Your task to perform on an android device: Play the last video I watched on Youtube Image 0: 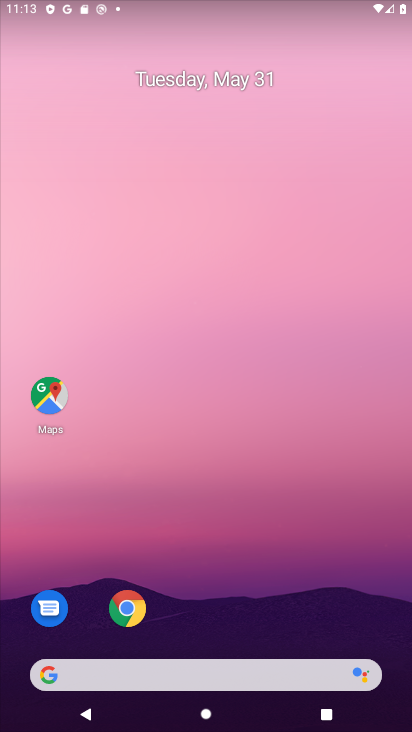
Step 0: drag from (229, 630) to (208, 29)
Your task to perform on an android device: Play the last video I watched on Youtube Image 1: 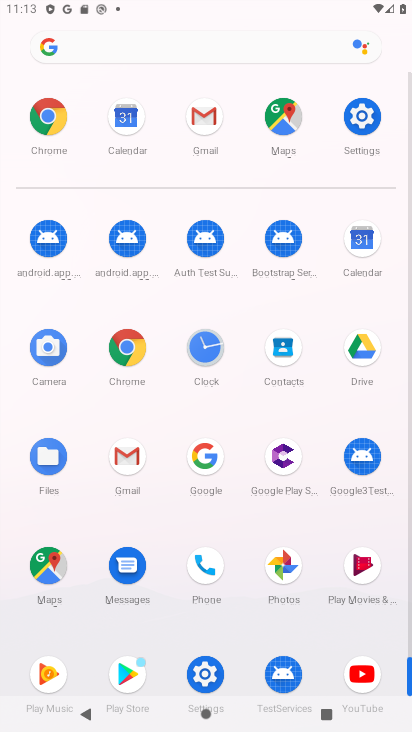
Step 1: click (347, 683)
Your task to perform on an android device: Play the last video I watched on Youtube Image 2: 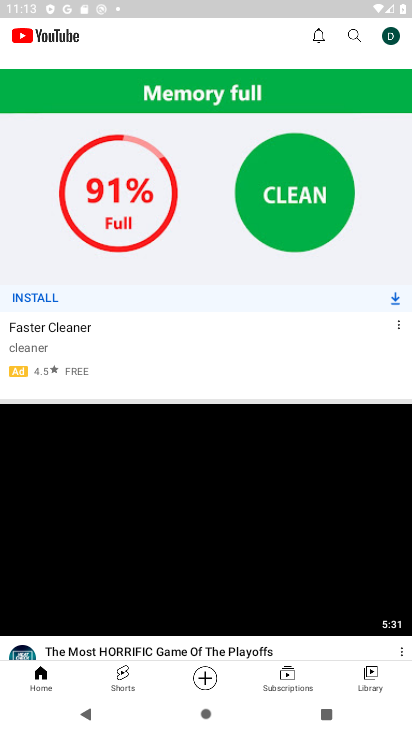
Step 2: click (374, 681)
Your task to perform on an android device: Play the last video I watched on Youtube Image 3: 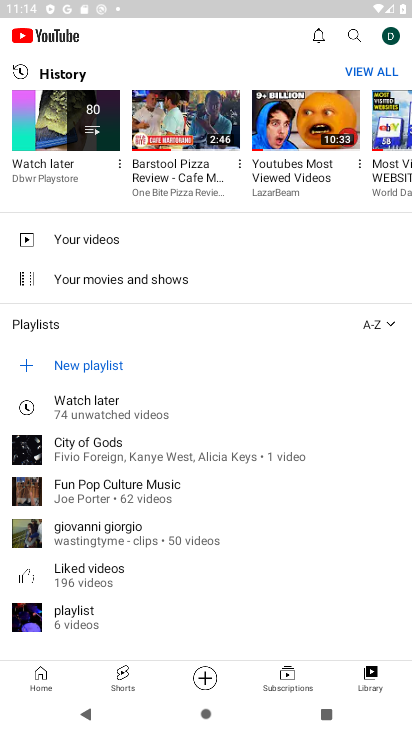
Step 3: click (58, 165)
Your task to perform on an android device: Play the last video I watched on Youtube Image 4: 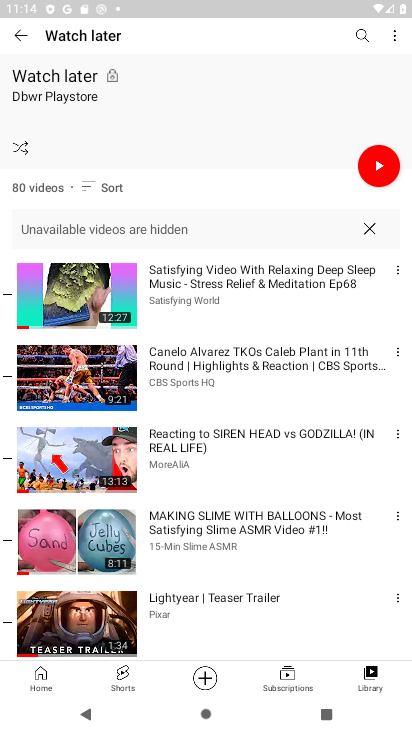
Step 4: click (51, 75)
Your task to perform on an android device: Play the last video I watched on Youtube Image 5: 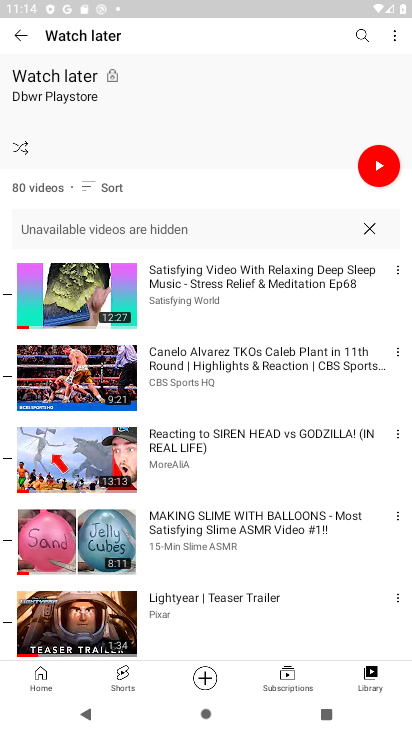
Step 5: click (18, 26)
Your task to perform on an android device: Play the last video I watched on Youtube Image 6: 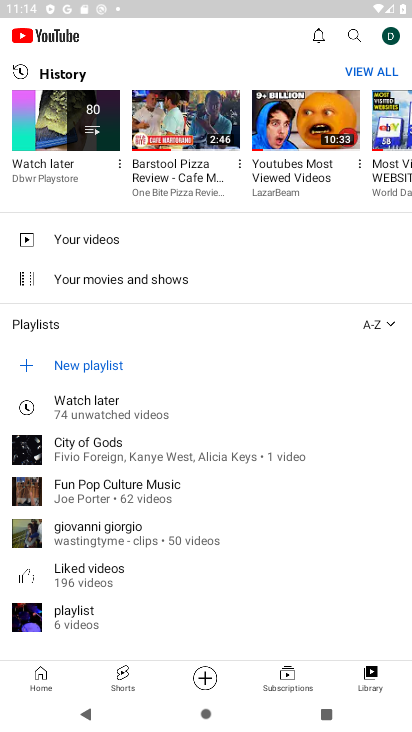
Step 6: click (68, 149)
Your task to perform on an android device: Play the last video I watched on Youtube Image 7: 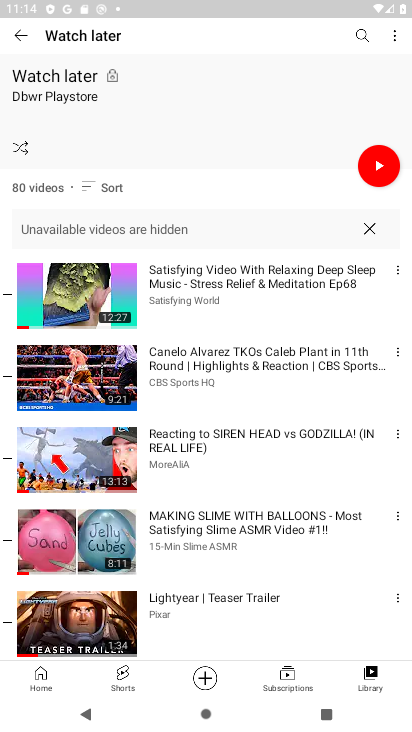
Step 7: click (64, 321)
Your task to perform on an android device: Play the last video I watched on Youtube Image 8: 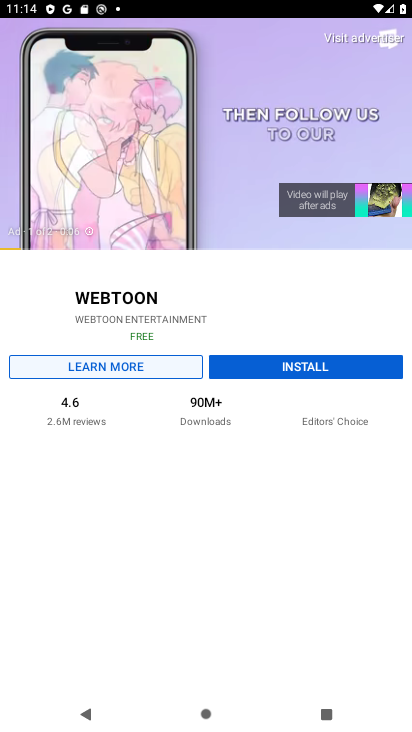
Step 8: task complete